Your task to perform on an android device: Check the weather Image 0: 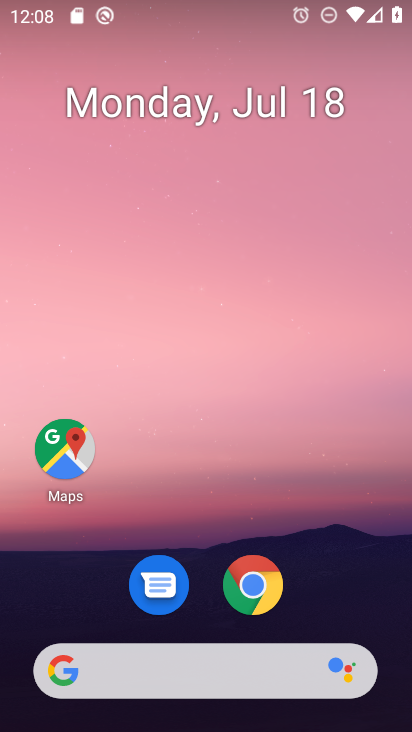
Step 0: click (204, 668)
Your task to perform on an android device: Check the weather Image 1: 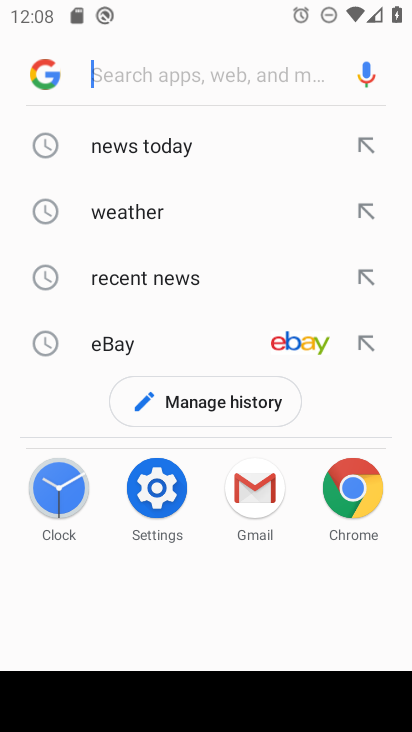
Step 1: click (132, 214)
Your task to perform on an android device: Check the weather Image 2: 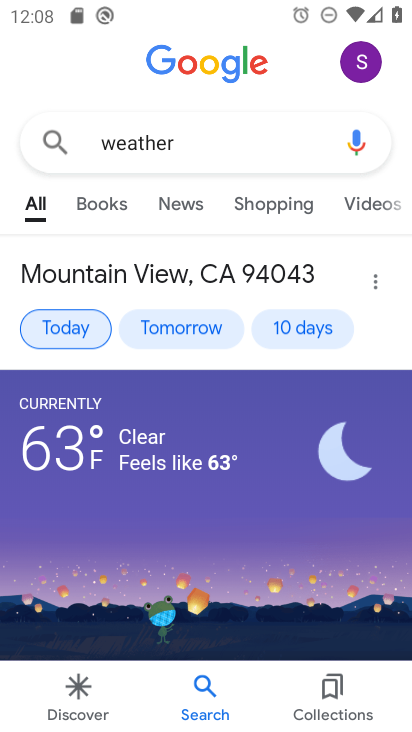
Step 2: click (81, 326)
Your task to perform on an android device: Check the weather Image 3: 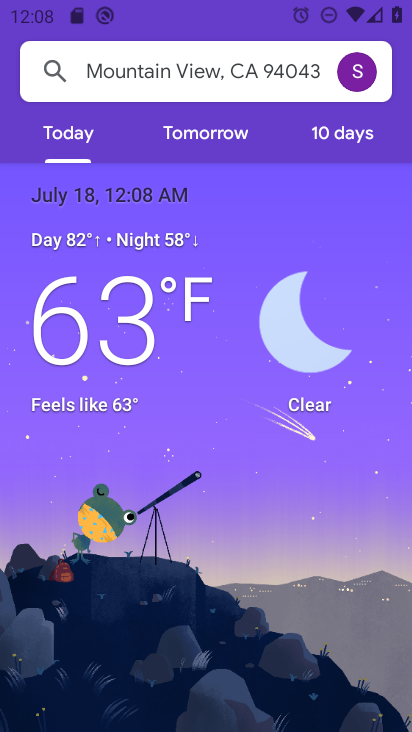
Step 3: task complete